Your task to perform on an android device: delete location history Image 0: 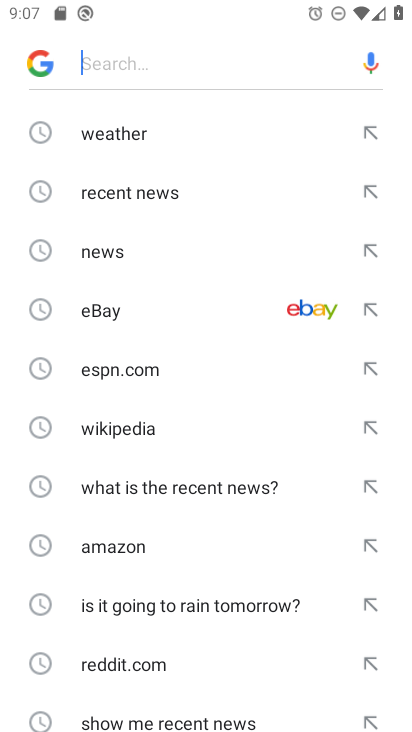
Step 0: drag from (226, 641) to (309, 344)
Your task to perform on an android device: delete location history Image 1: 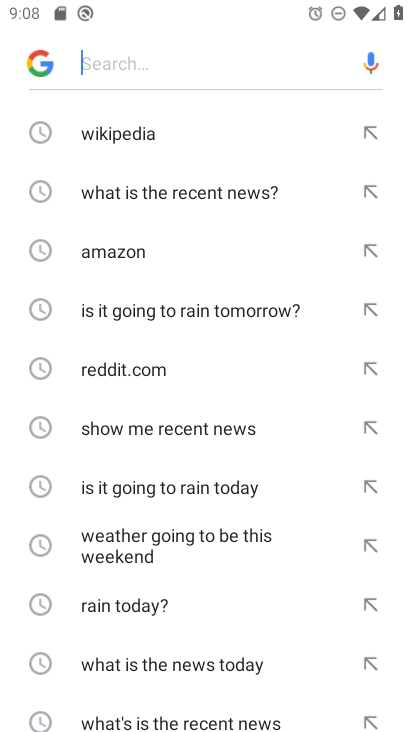
Step 1: press home button
Your task to perform on an android device: delete location history Image 2: 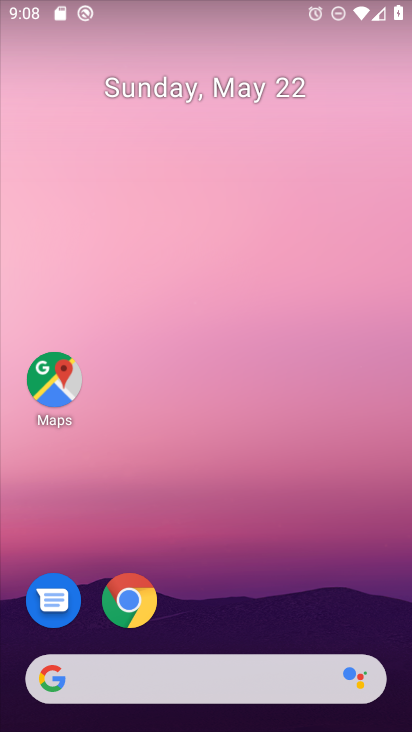
Step 2: drag from (290, 635) to (256, 209)
Your task to perform on an android device: delete location history Image 3: 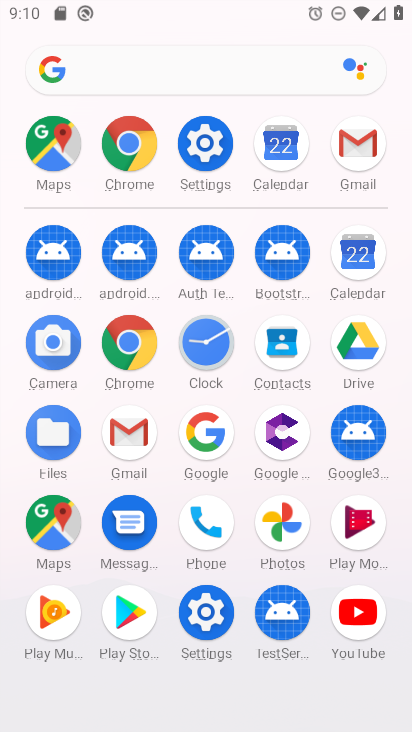
Step 3: click (200, 159)
Your task to perform on an android device: delete location history Image 4: 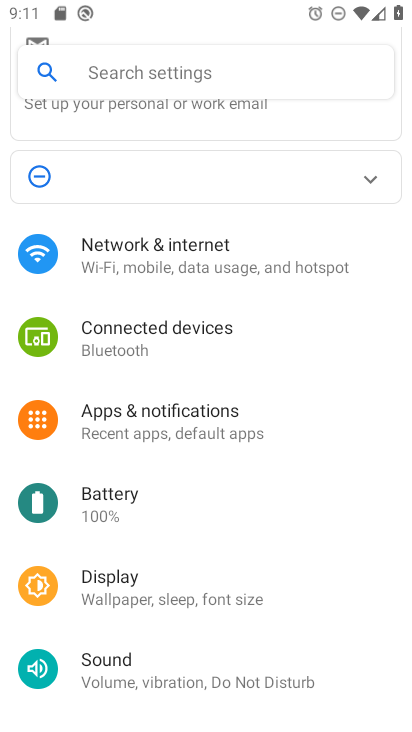
Step 4: drag from (190, 582) to (242, 413)
Your task to perform on an android device: delete location history Image 5: 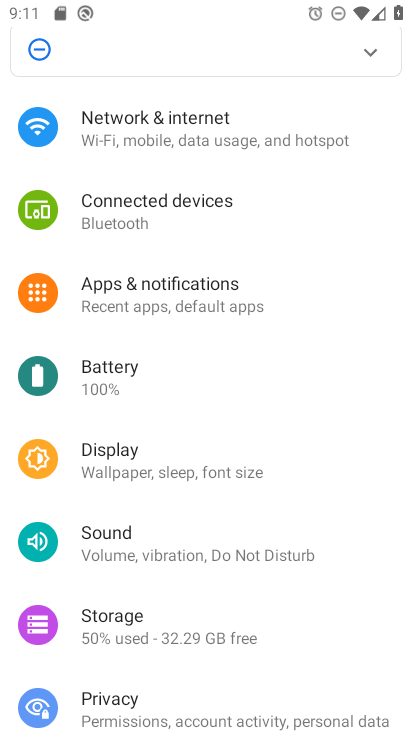
Step 5: drag from (133, 519) to (227, 214)
Your task to perform on an android device: delete location history Image 6: 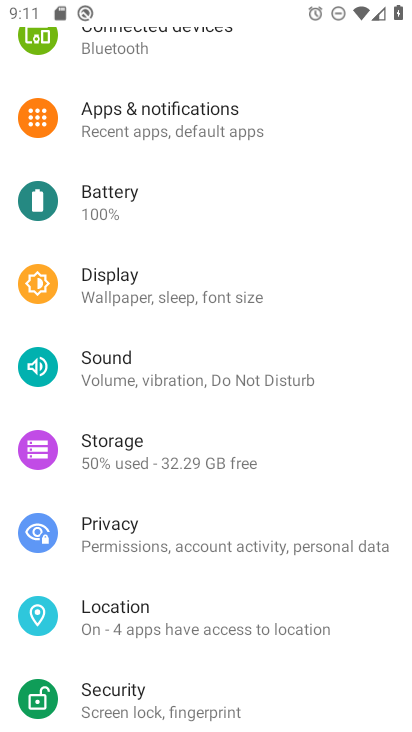
Step 6: click (160, 628)
Your task to perform on an android device: delete location history Image 7: 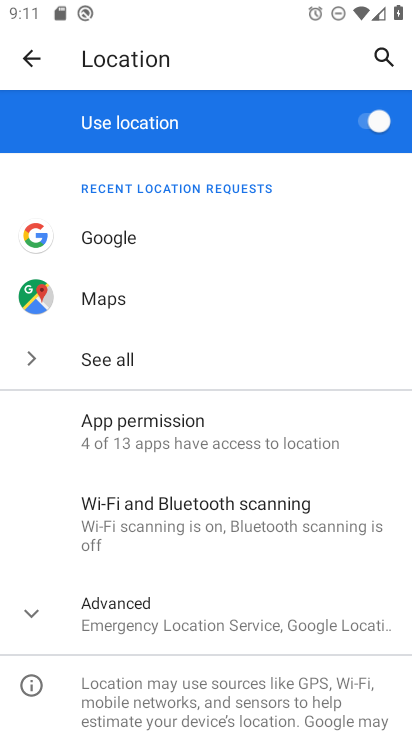
Step 7: click (139, 621)
Your task to perform on an android device: delete location history Image 8: 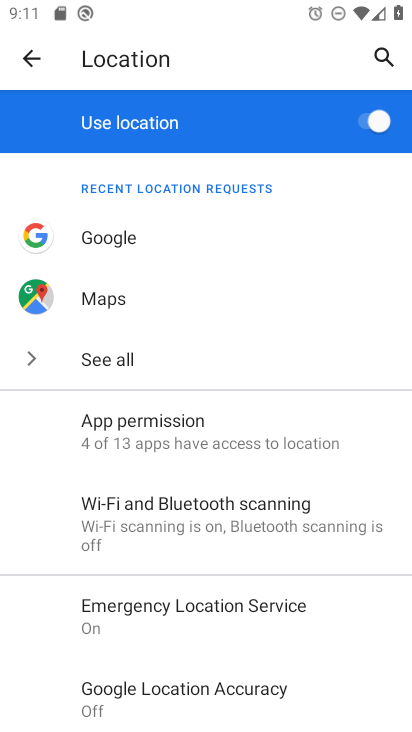
Step 8: drag from (190, 644) to (317, 52)
Your task to perform on an android device: delete location history Image 9: 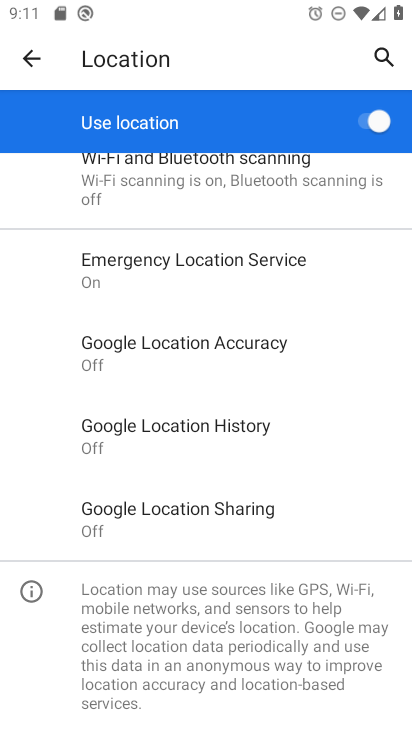
Step 9: click (255, 430)
Your task to perform on an android device: delete location history Image 10: 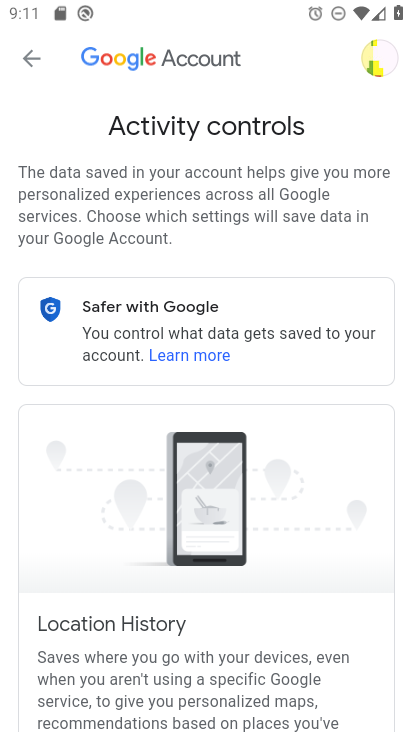
Step 10: drag from (235, 498) to (273, 142)
Your task to perform on an android device: delete location history Image 11: 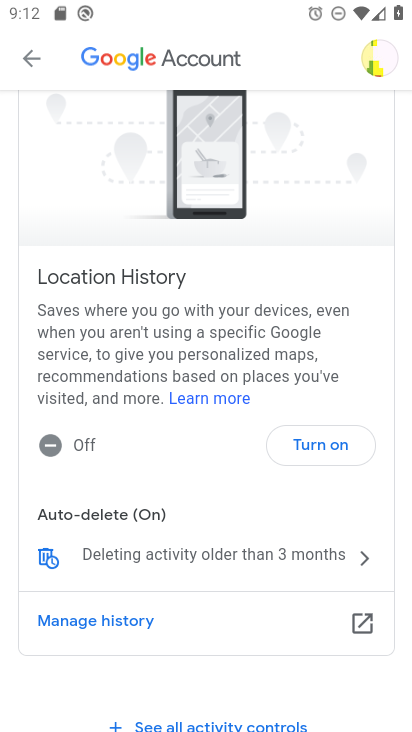
Step 11: click (230, 557)
Your task to perform on an android device: delete location history Image 12: 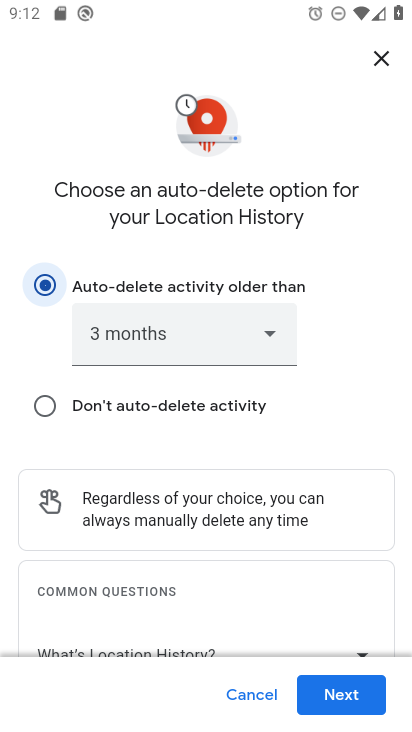
Step 12: drag from (321, 395) to (346, 234)
Your task to perform on an android device: delete location history Image 13: 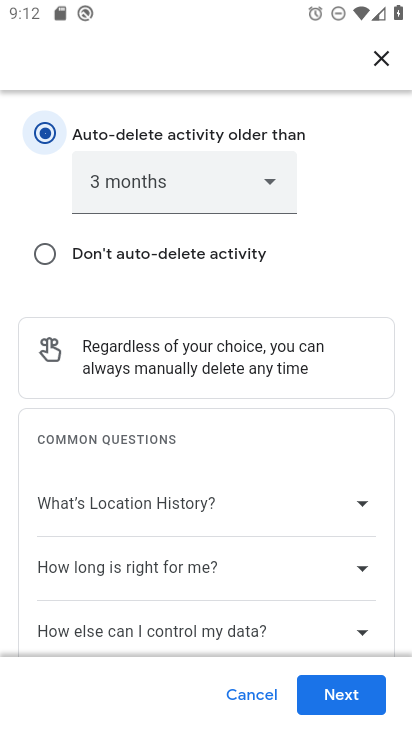
Step 13: click (354, 692)
Your task to perform on an android device: delete location history Image 14: 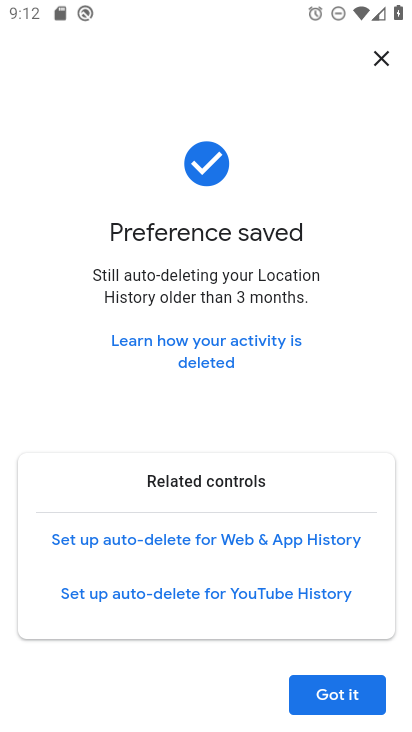
Step 14: click (336, 693)
Your task to perform on an android device: delete location history Image 15: 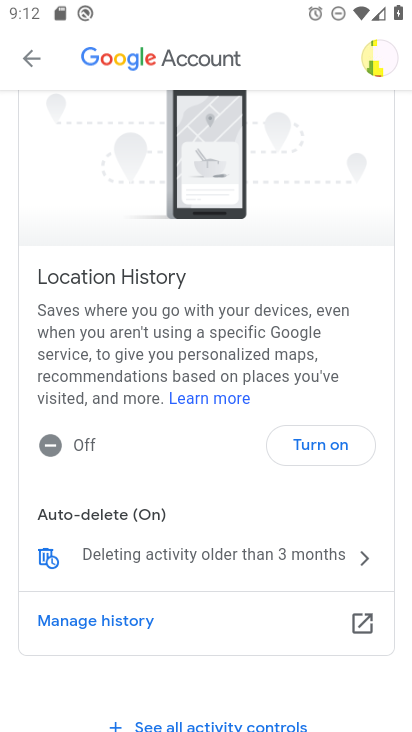
Step 15: task complete